Your task to perform on an android device: Go to Wikipedia Image 0: 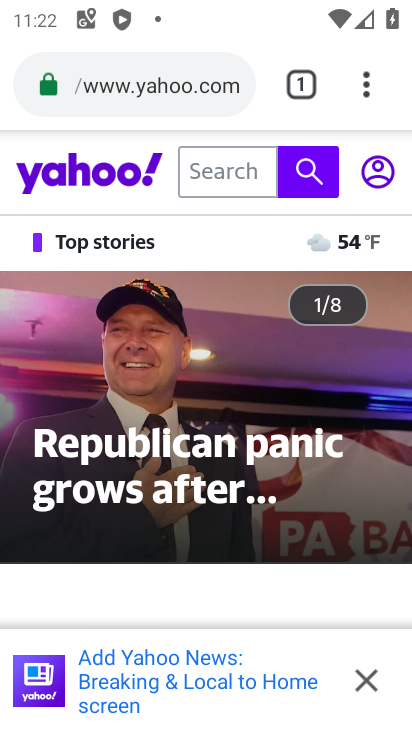
Step 0: click (158, 83)
Your task to perform on an android device: Go to Wikipedia Image 1: 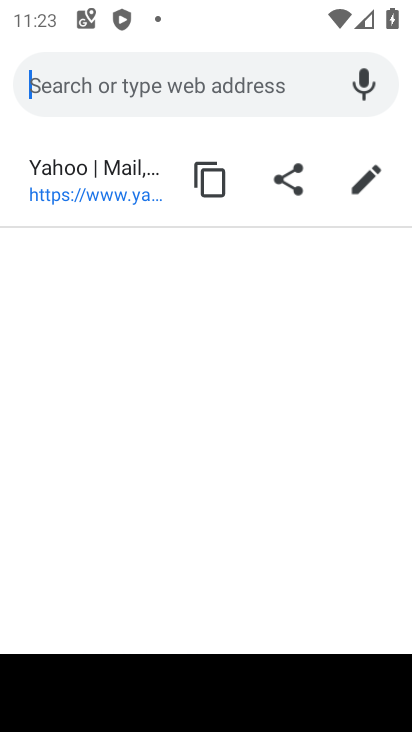
Step 1: type "wikipedia"
Your task to perform on an android device: Go to Wikipedia Image 2: 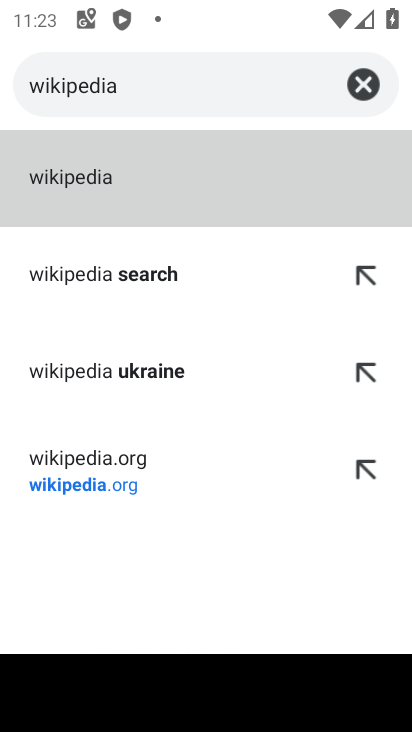
Step 2: click (80, 188)
Your task to perform on an android device: Go to Wikipedia Image 3: 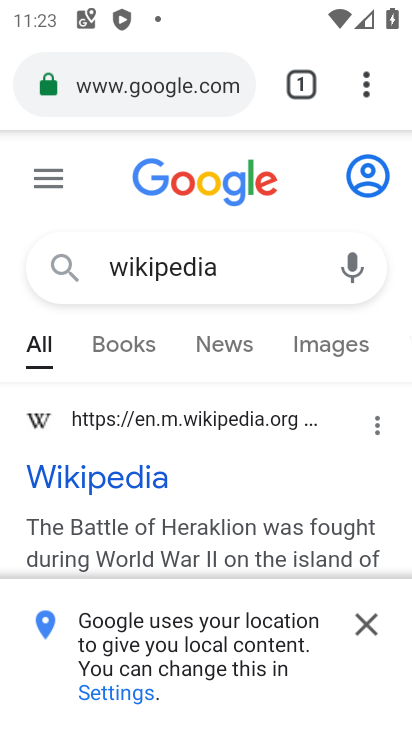
Step 3: click (109, 478)
Your task to perform on an android device: Go to Wikipedia Image 4: 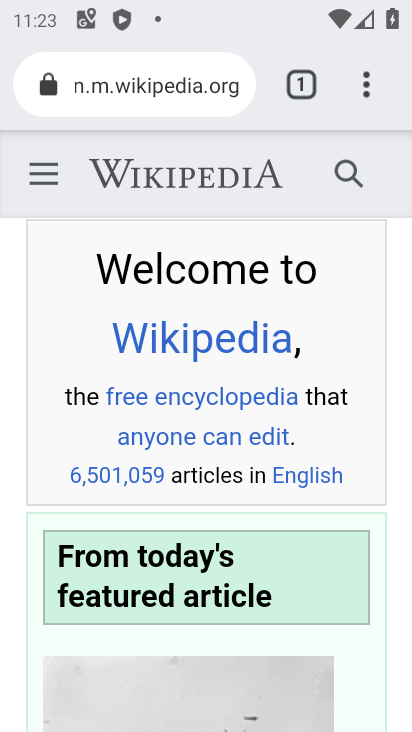
Step 4: task complete